Your task to perform on an android device: Open Amazon Image 0: 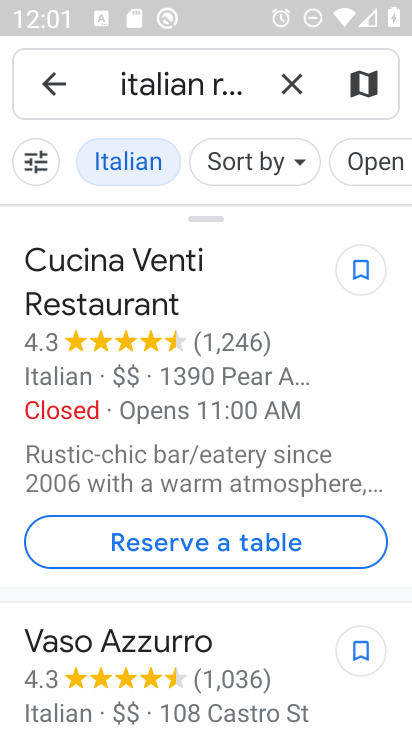
Step 0: press home button
Your task to perform on an android device: Open Amazon Image 1: 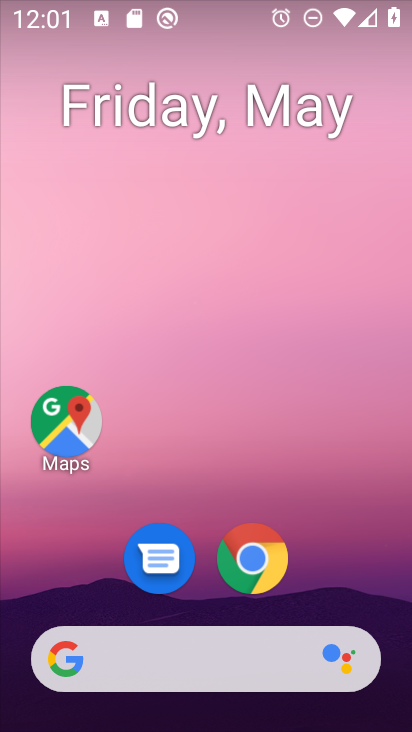
Step 1: click (251, 559)
Your task to perform on an android device: Open Amazon Image 2: 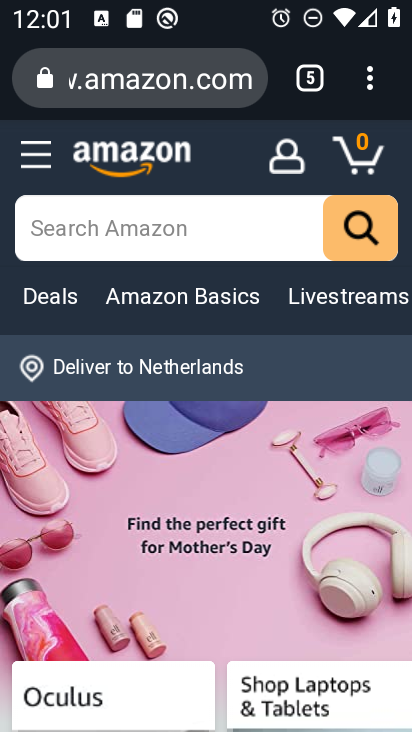
Step 2: task complete